Your task to perform on an android device: turn off translation in the chrome app Image 0: 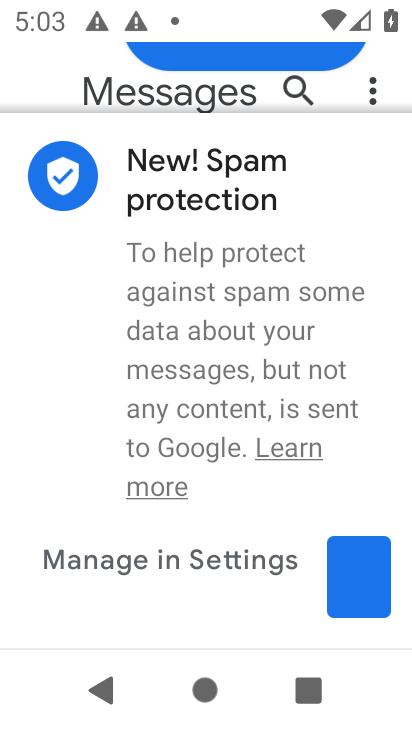
Step 0: press home button
Your task to perform on an android device: turn off translation in the chrome app Image 1: 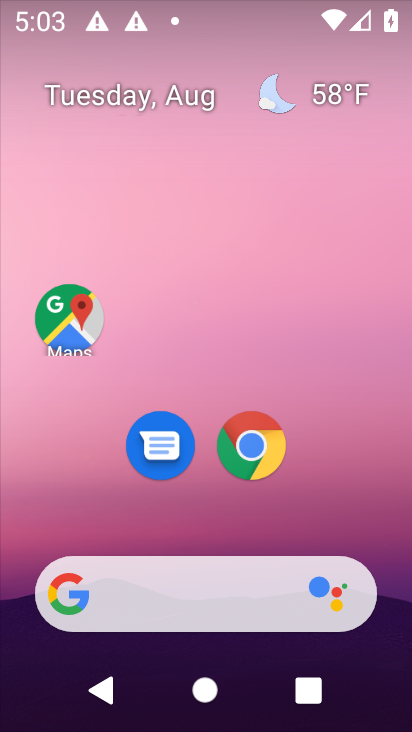
Step 1: drag from (196, 531) to (218, 78)
Your task to perform on an android device: turn off translation in the chrome app Image 2: 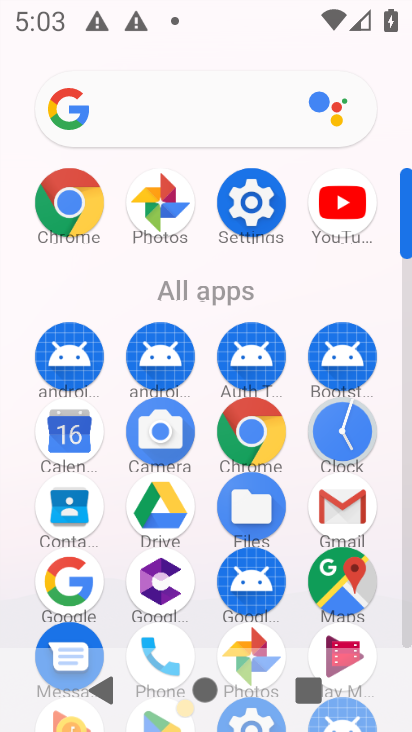
Step 2: click (69, 204)
Your task to perform on an android device: turn off translation in the chrome app Image 3: 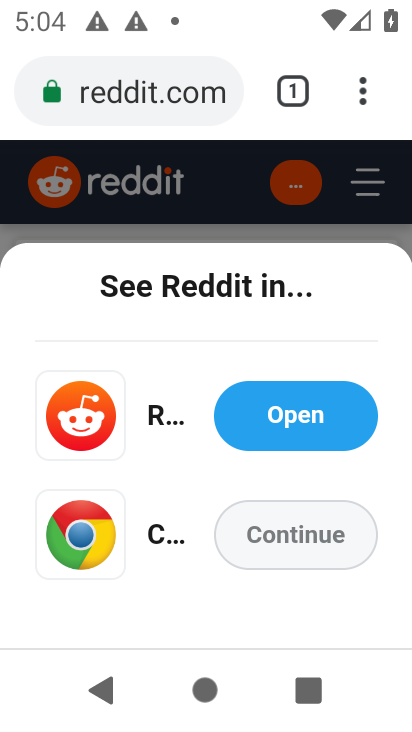
Step 3: click (366, 94)
Your task to perform on an android device: turn off translation in the chrome app Image 4: 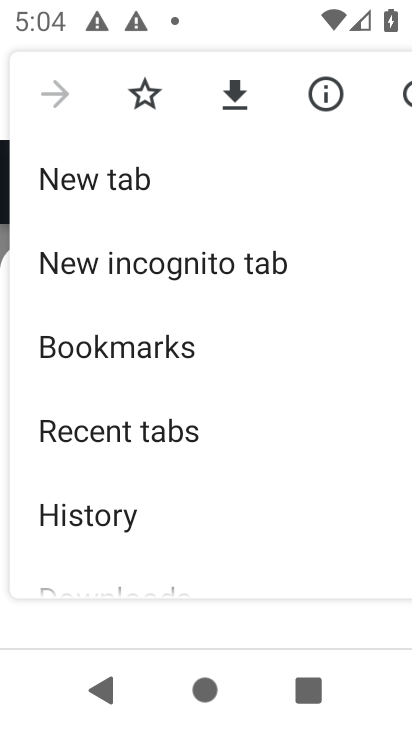
Step 4: drag from (181, 499) to (181, 287)
Your task to perform on an android device: turn off translation in the chrome app Image 5: 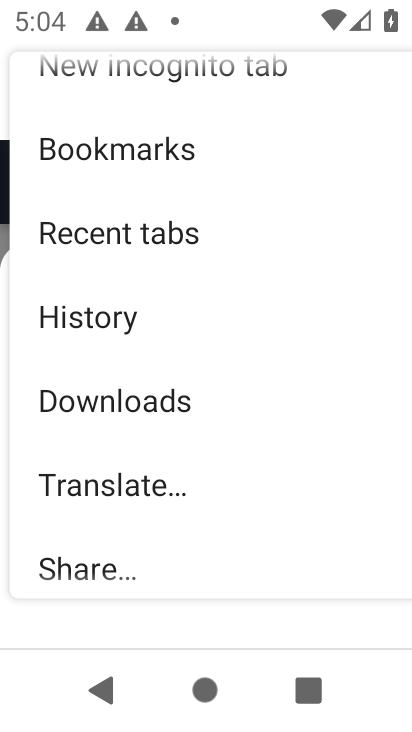
Step 5: drag from (150, 451) to (190, 161)
Your task to perform on an android device: turn off translation in the chrome app Image 6: 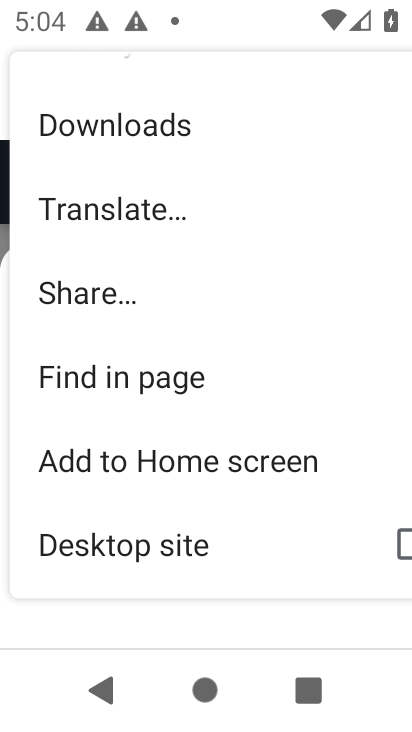
Step 6: drag from (268, 516) to (284, 318)
Your task to perform on an android device: turn off translation in the chrome app Image 7: 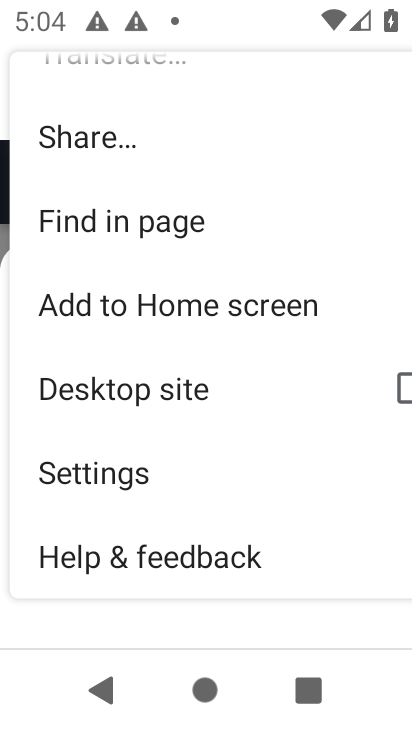
Step 7: click (119, 481)
Your task to perform on an android device: turn off translation in the chrome app Image 8: 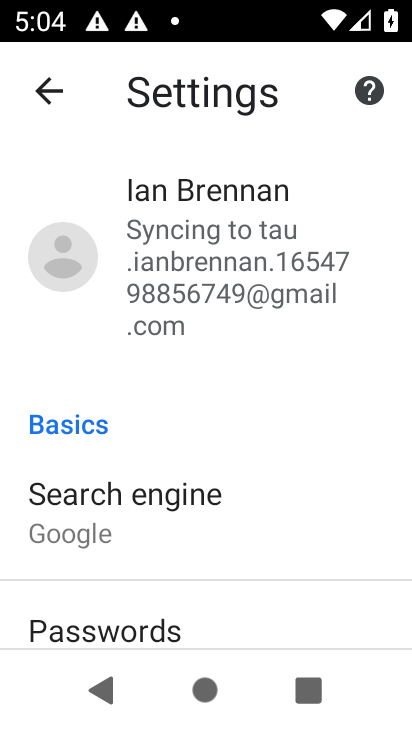
Step 8: drag from (144, 563) to (156, 124)
Your task to perform on an android device: turn off translation in the chrome app Image 9: 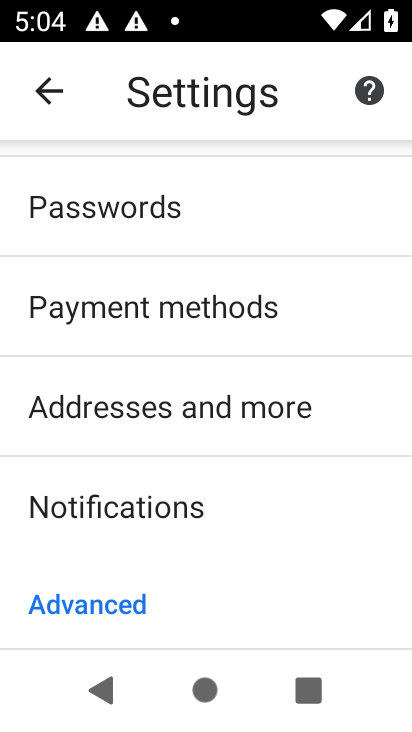
Step 9: drag from (208, 562) to (205, 310)
Your task to perform on an android device: turn off translation in the chrome app Image 10: 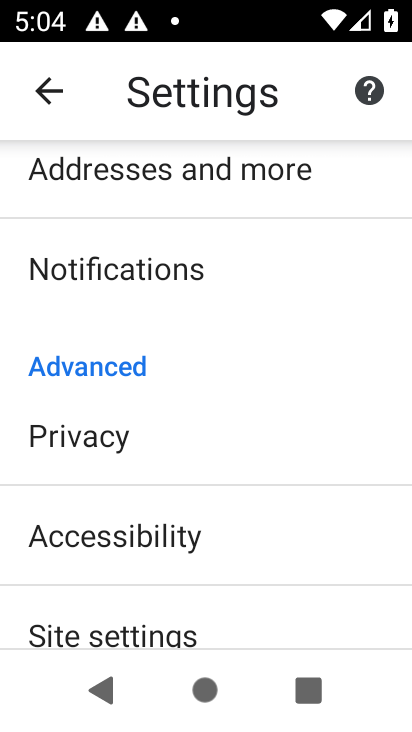
Step 10: drag from (224, 606) to (224, 343)
Your task to perform on an android device: turn off translation in the chrome app Image 11: 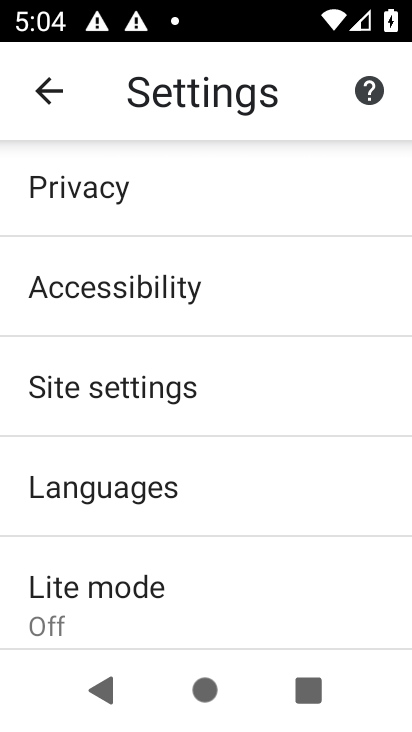
Step 11: click (148, 511)
Your task to perform on an android device: turn off translation in the chrome app Image 12: 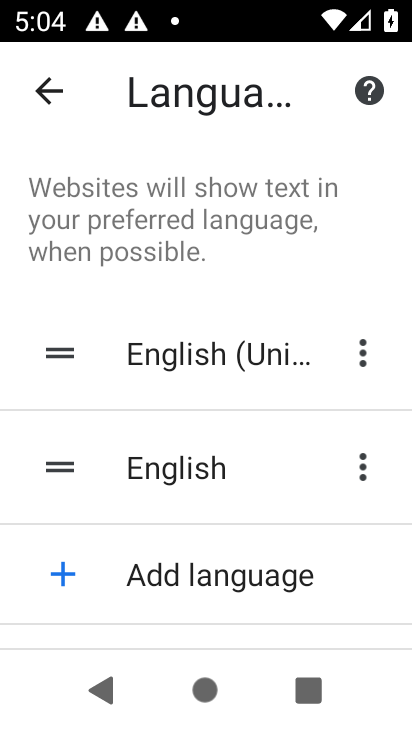
Step 12: task complete